Your task to perform on an android device: delete a single message in the gmail app Image 0: 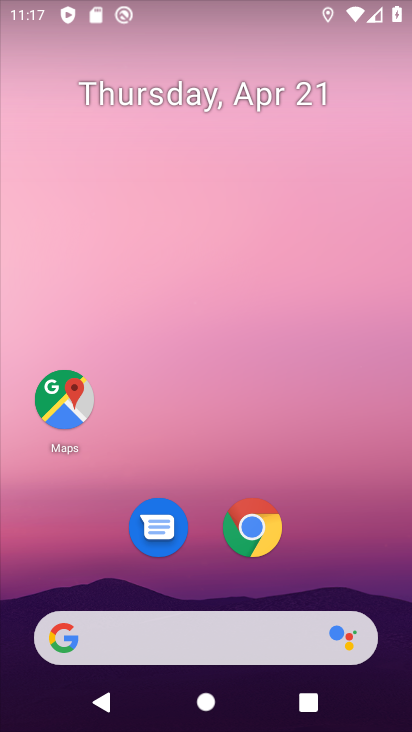
Step 0: drag from (171, 587) to (308, 117)
Your task to perform on an android device: delete a single message in the gmail app Image 1: 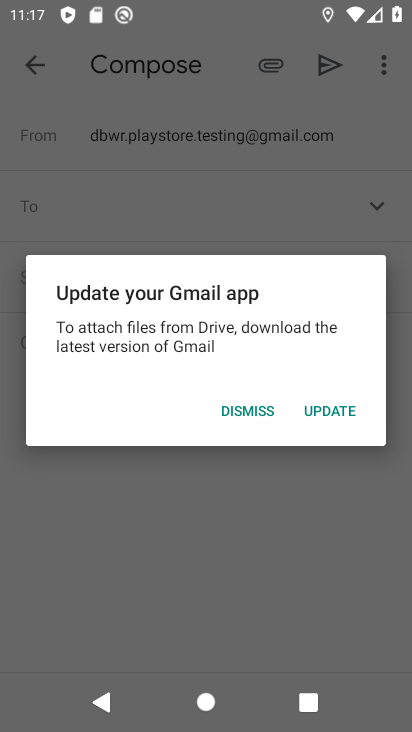
Step 1: press back button
Your task to perform on an android device: delete a single message in the gmail app Image 2: 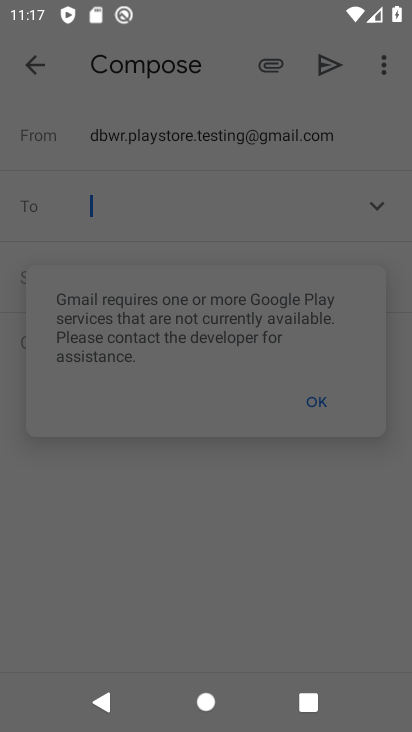
Step 2: press back button
Your task to perform on an android device: delete a single message in the gmail app Image 3: 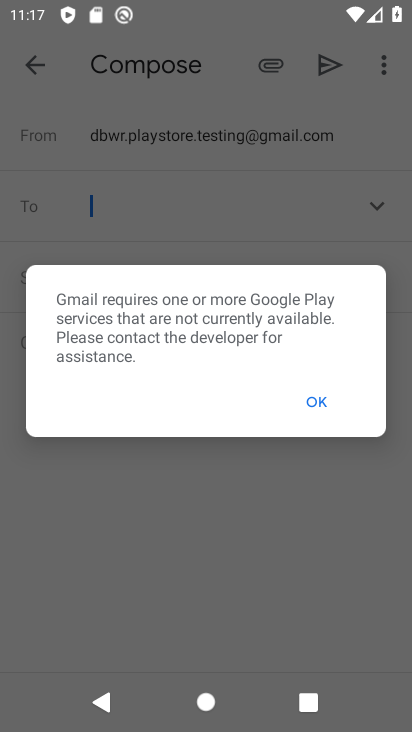
Step 3: press back button
Your task to perform on an android device: delete a single message in the gmail app Image 4: 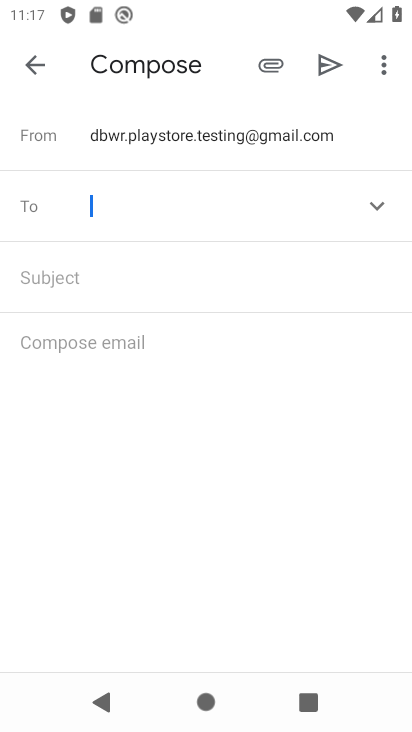
Step 4: press back button
Your task to perform on an android device: delete a single message in the gmail app Image 5: 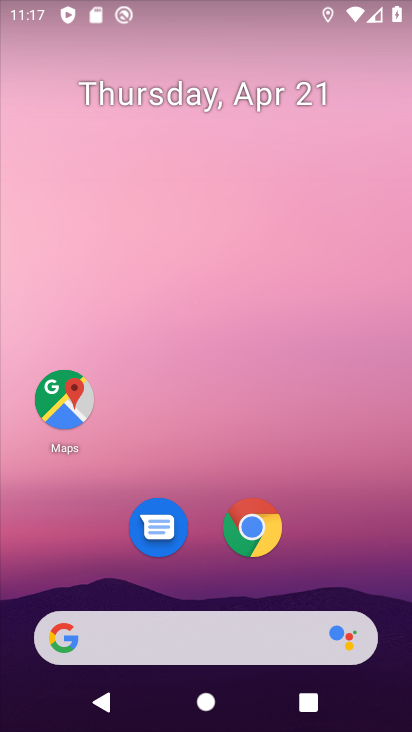
Step 5: drag from (157, 591) to (258, 78)
Your task to perform on an android device: delete a single message in the gmail app Image 6: 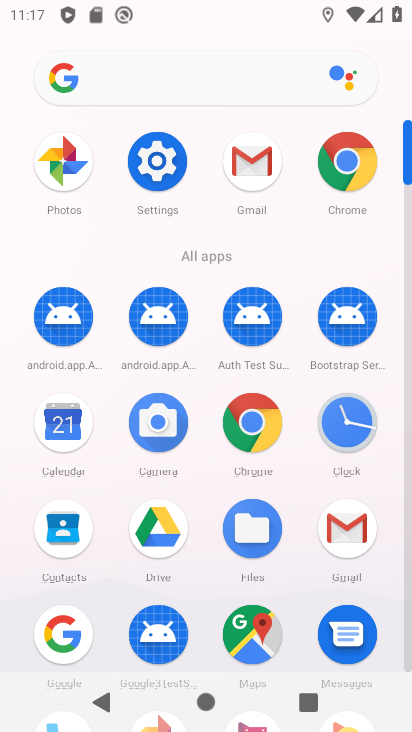
Step 6: click (361, 528)
Your task to perform on an android device: delete a single message in the gmail app Image 7: 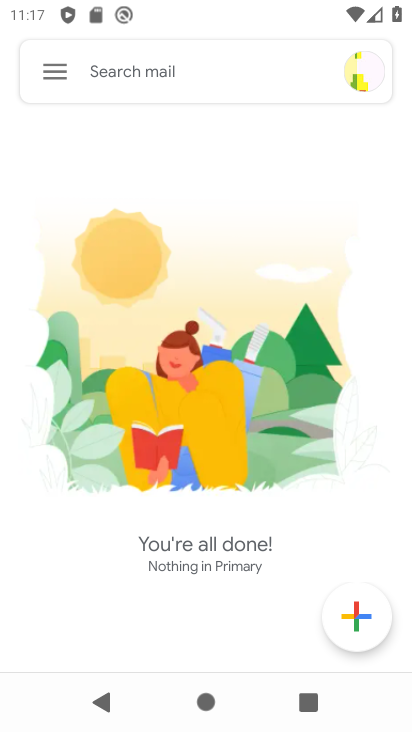
Step 7: click (64, 88)
Your task to perform on an android device: delete a single message in the gmail app Image 8: 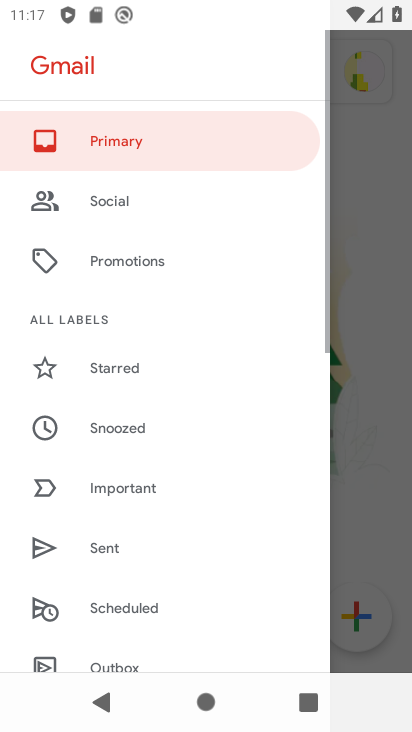
Step 8: drag from (152, 588) to (218, 248)
Your task to perform on an android device: delete a single message in the gmail app Image 9: 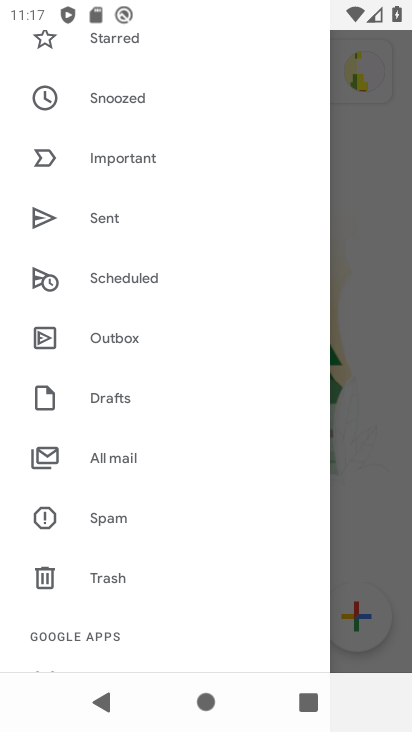
Step 9: click (138, 456)
Your task to perform on an android device: delete a single message in the gmail app Image 10: 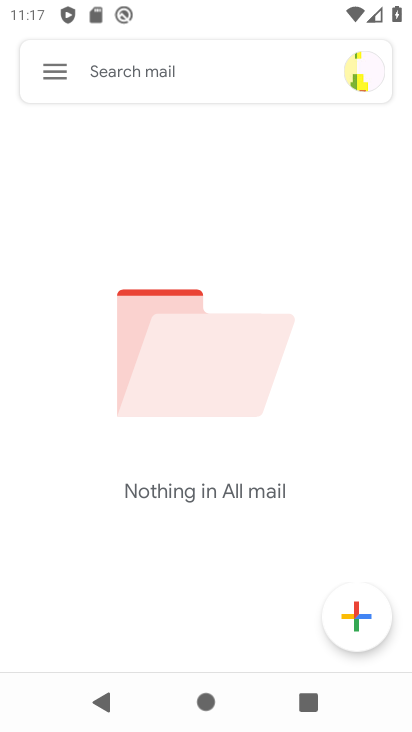
Step 10: task complete